Your task to perform on an android device: toggle location history Image 0: 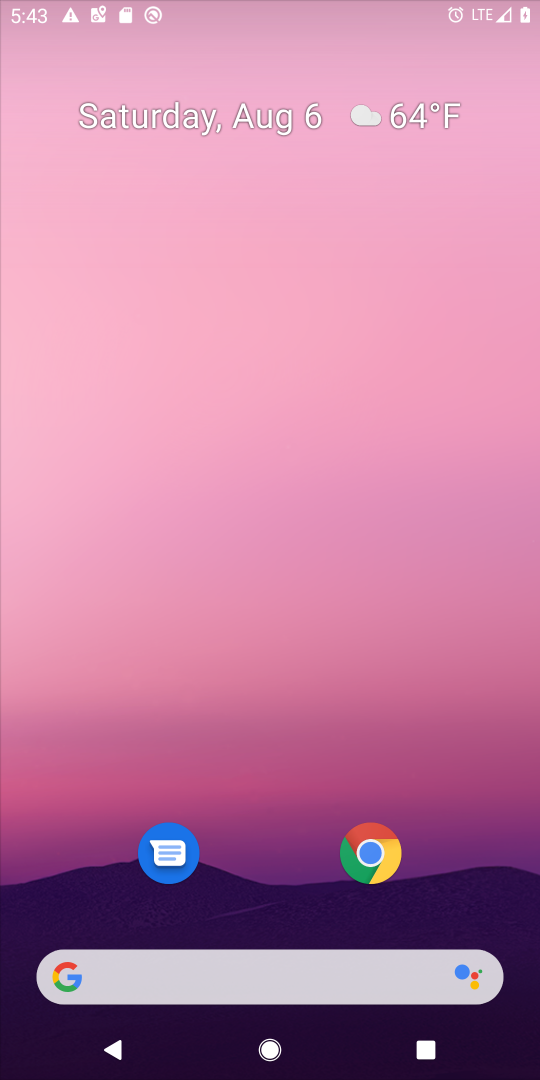
Step 0: press back button
Your task to perform on an android device: toggle location history Image 1: 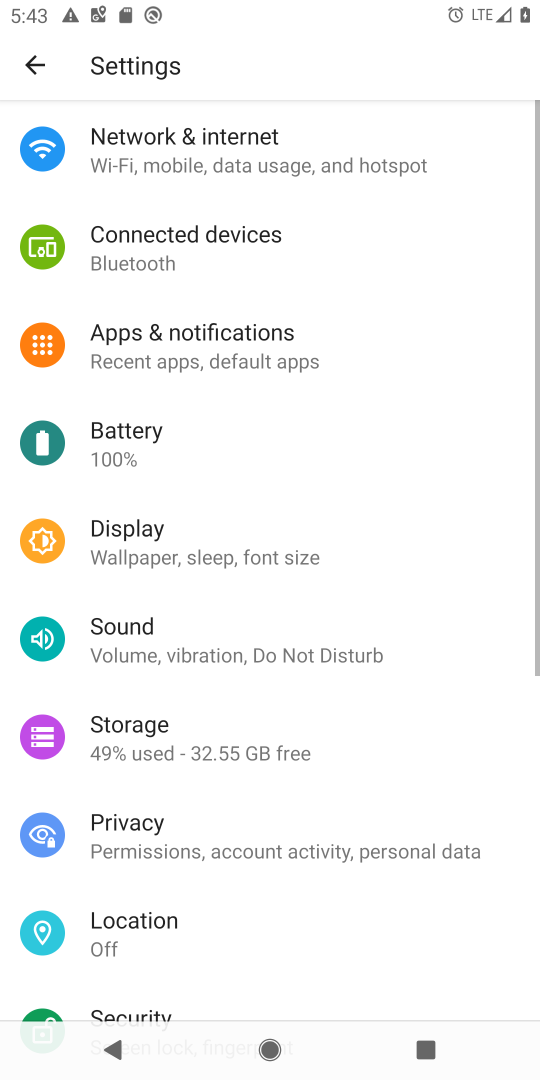
Step 1: drag from (262, 826) to (412, 144)
Your task to perform on an android device: toggle location history Image 2: 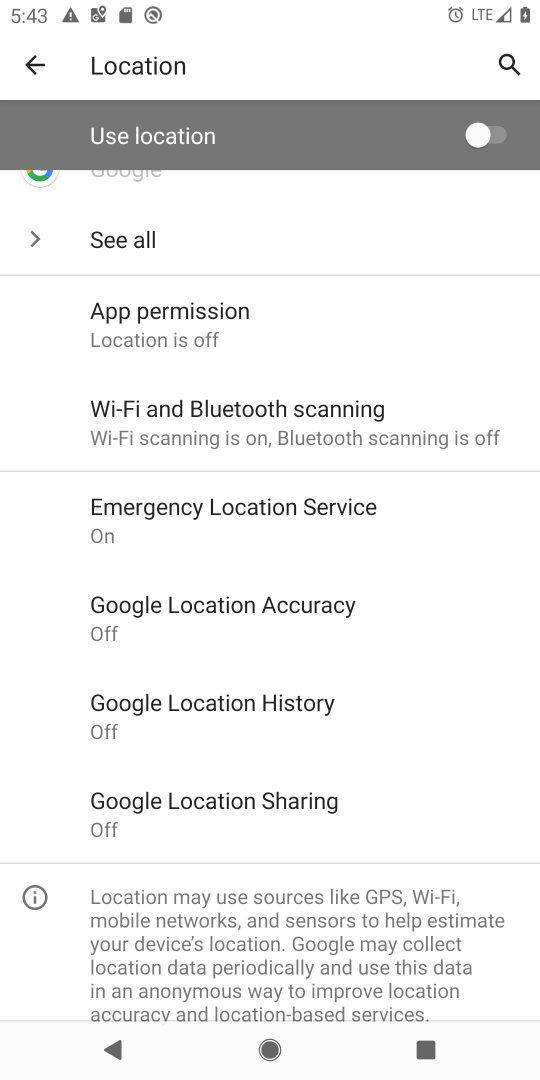
Step 2: click (194, 710)
Your task to perform on an android device: toggle location history Image 3: 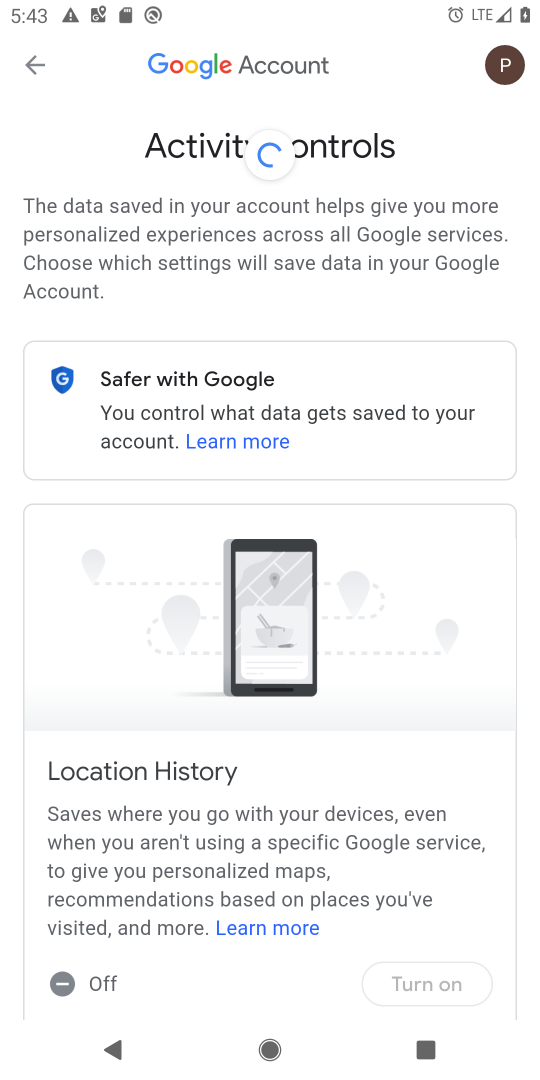
Step 3: task complete